Your task to perform on an android device: Open location settings Image 0: 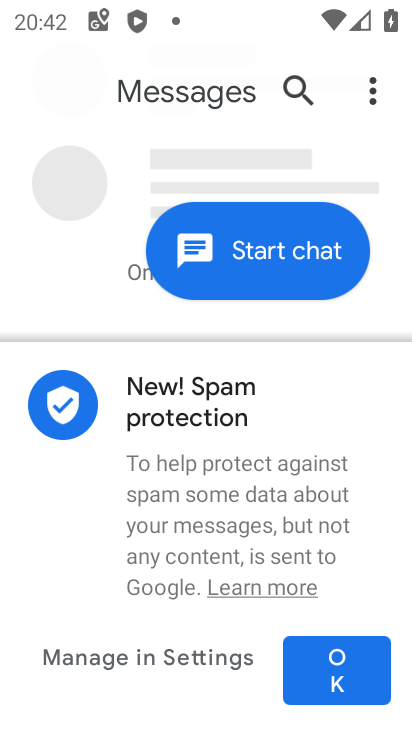
Step 0: press home button
Your task to perform on an android device: Open location settings Image 1: 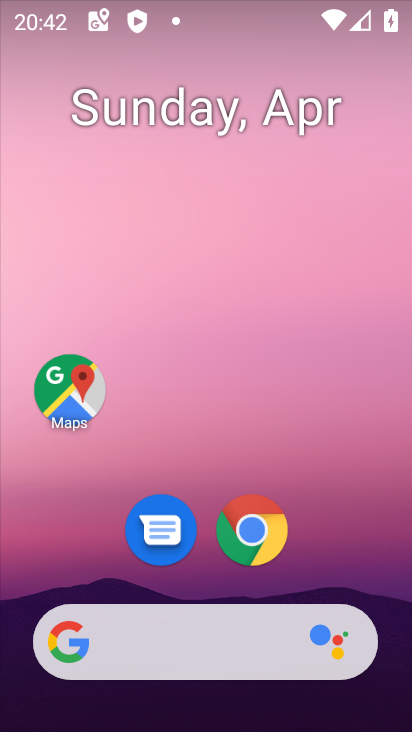
Step 1: drag from (206, 543) to (261, 125)
Your task to perform on an android device: Open location settings Image 2: 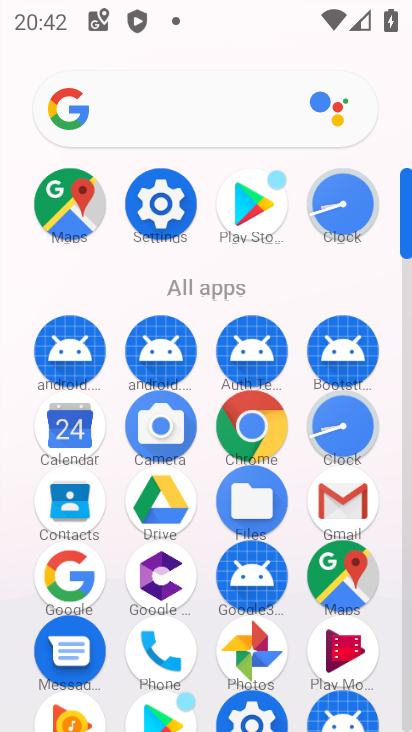
Step 2: click (150, 208)
Your task to perform on an android device: Open location settings Image 3: 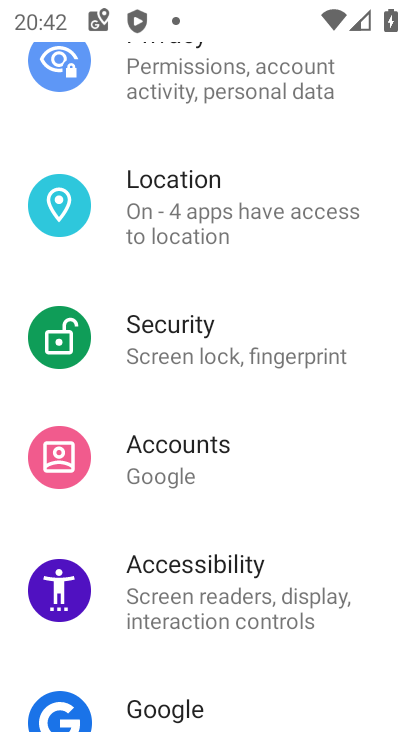
Step 3: click (236, 189)
Your task to perform on an android device: Open location settings Image 4: 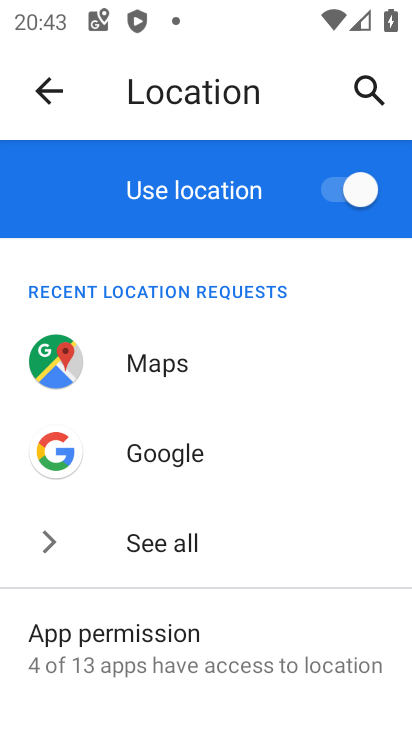
Step 4: task complete